Your task to perform on an android device: Is it going to rain today? Image 0: 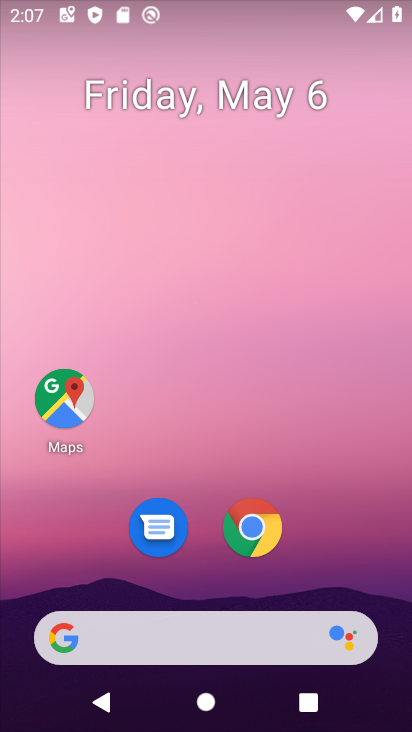
Step 0: drag from (329, 519) to (329, 125)
Your task to perform on an android device: Is it going to rain today? Image 1: 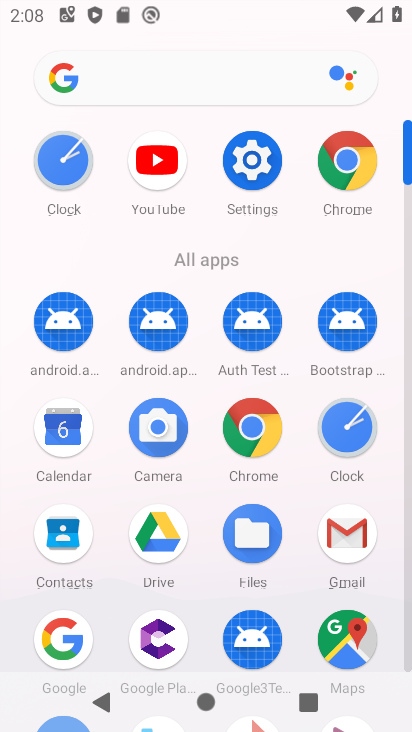
Step 1: click (364, 158)
Your task to perform on an android device: Is it going to rain today? Image 2: 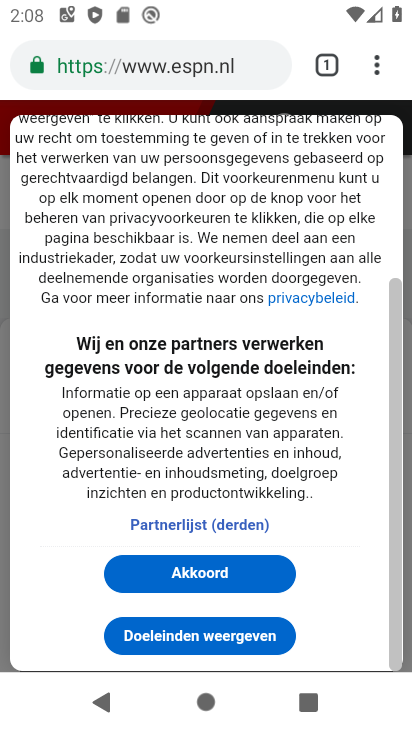
Step 2: click (227, 63)
Your task to perform on an android device: Is it going to rain today? Image 3: 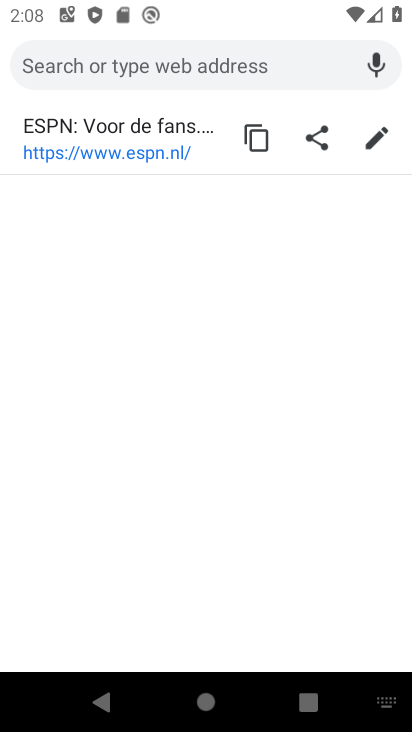
Step 3: type "Is it going to rain today?"
Your task to perform on an android device: Is it going to rain today? Image 4: 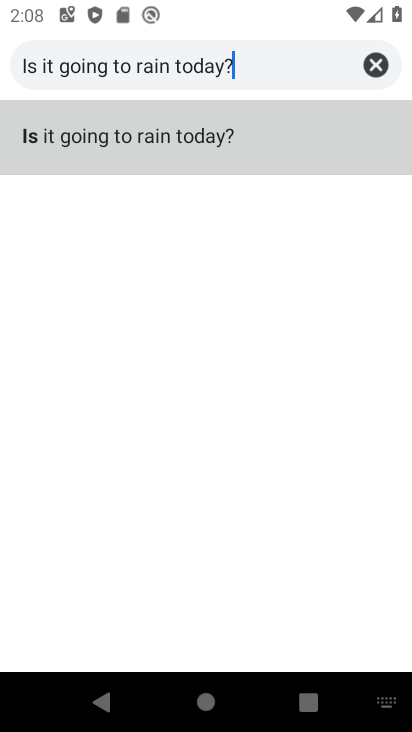
Step 4: click (178, 145)
Your task to perform on an android device: Is it going to rain today? Image 5: 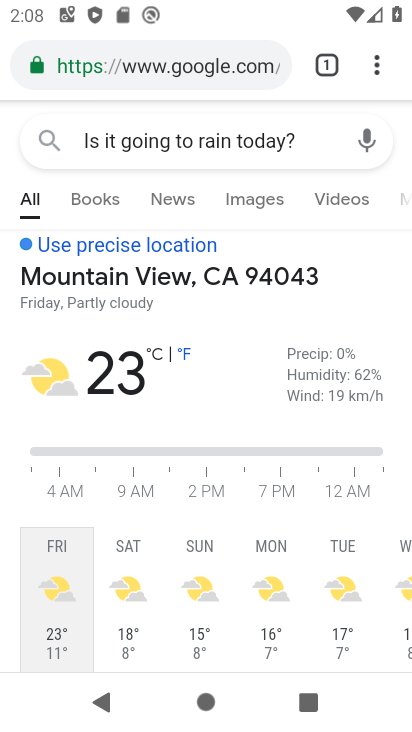
Step 5: task complete